Your task to perform on an android device: see creations saved in the google photos Image 0: 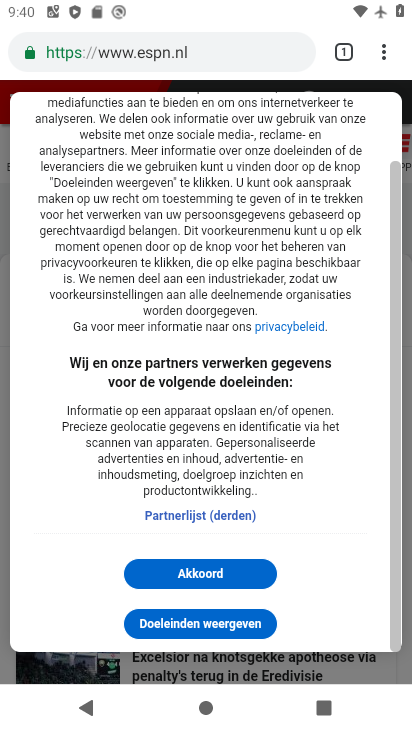
Step 0: press home button
Your task to perform on an android device: see creations saved in the google photos Image 1: 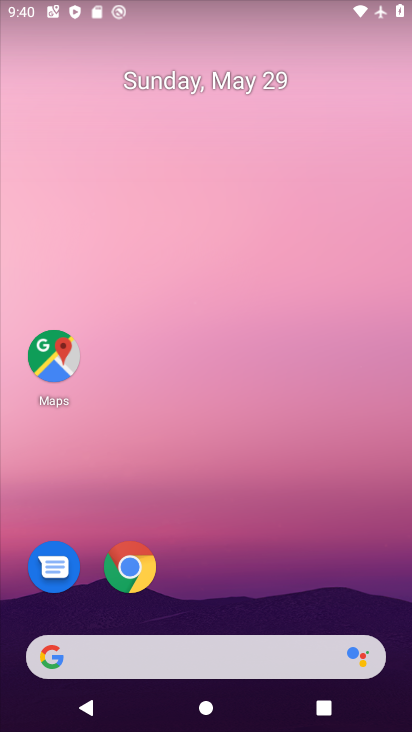
Step 1: drag from (394, 627) to (318, 71)
Your task to perform on an android device: see creations saved in the google photos Image 2: 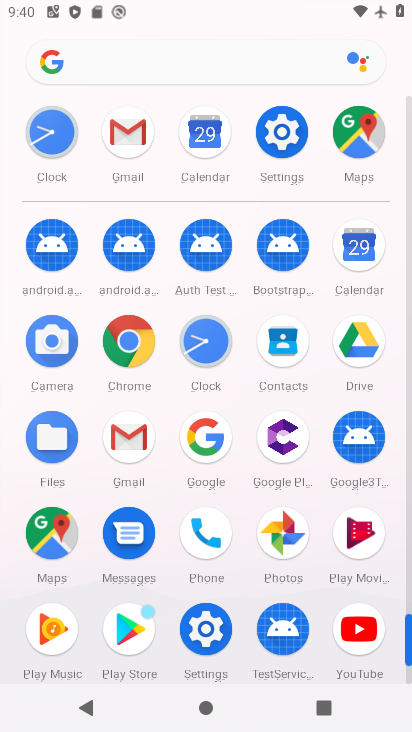
Step 2: click (282, 533)
Your task to perform on an android device: see creations saved in the google photos Image 3: 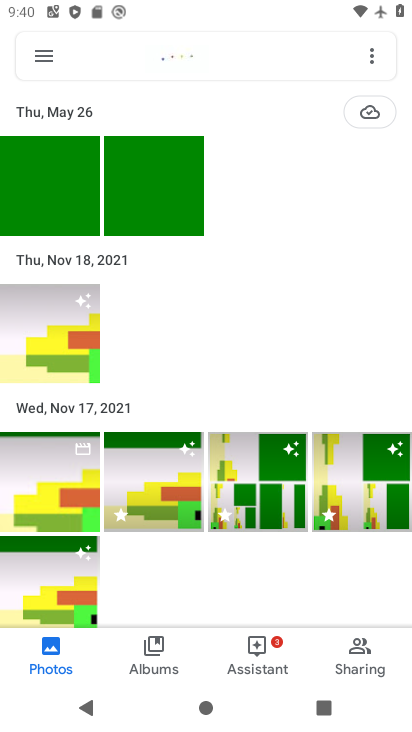
Step 3: task complete